Your task to perform on an android device: change the clock display to analog Image 0: 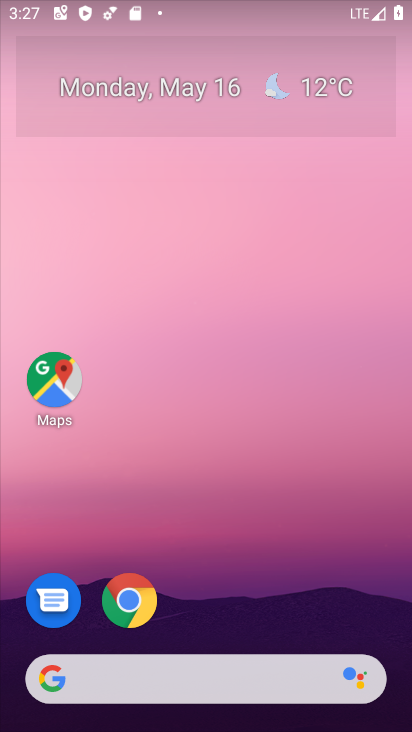
Step 0: drag from (228, 615) to (278, 184)
Your task to perform on an android device: change the clock display to analog Image 1: 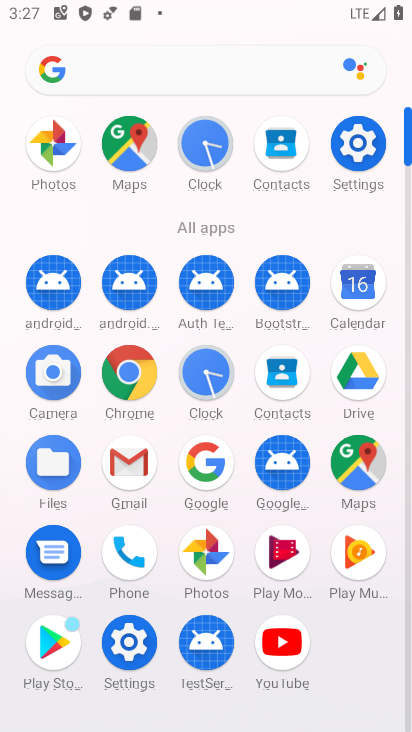
Step 1: click (195, 139)
Your task to perform on an android device: change the clock display to analog Image 2: 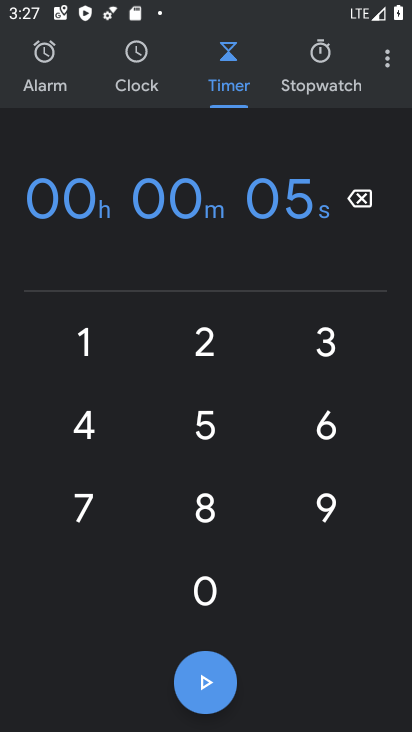
Step 2: drag from (389, 65) to (311, 112)
Your task to perform on an android device: change the clock display to analog Image 3: 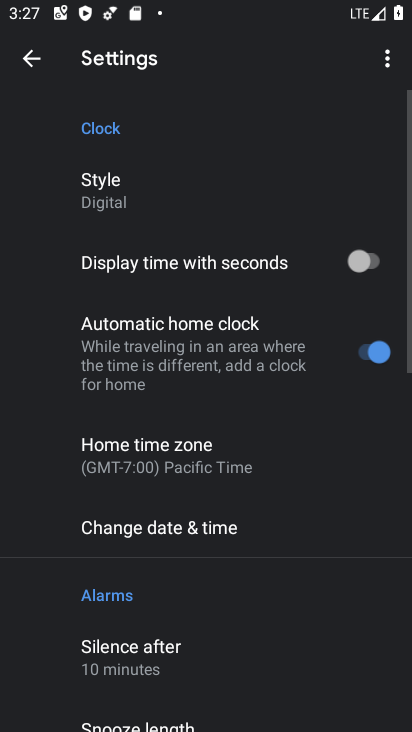
Step 3: click (119, 179)
Your task to perform on an android device: change the clock display to analog Image 4: 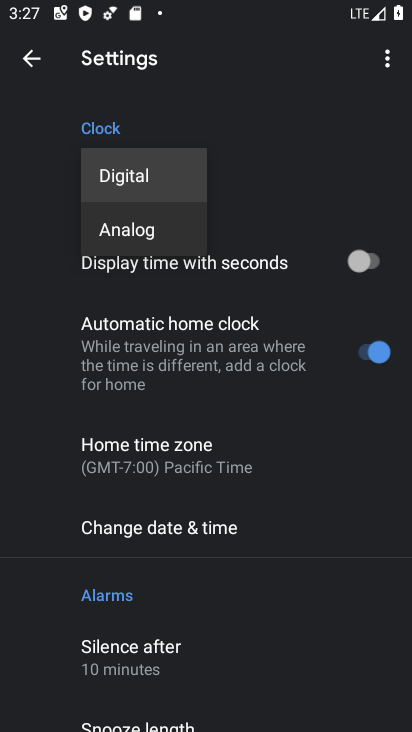
Step 4: click (134, 240)
Your task to perform on an android device: change the clock display to analog Image 5: 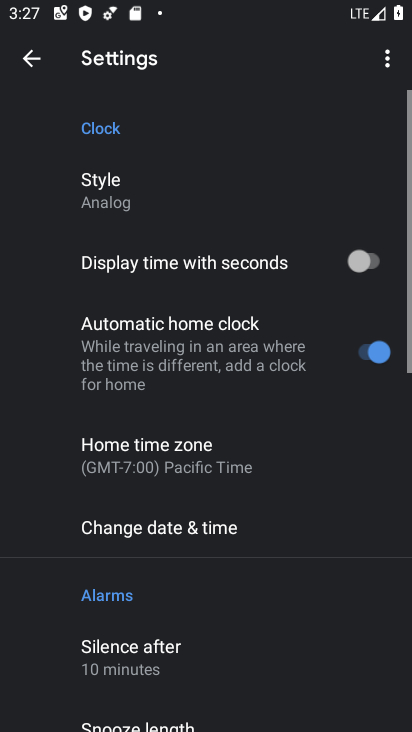
Step 5: task complete